Your task to perform on an android device: allow cookies in the chrome app Image 0: 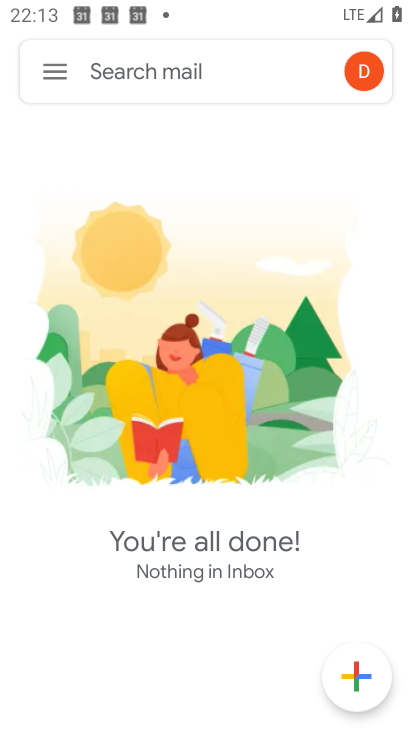
Step 0: press home button
Your task to perform on an android device: allow cookies in the chrome app Image 1: 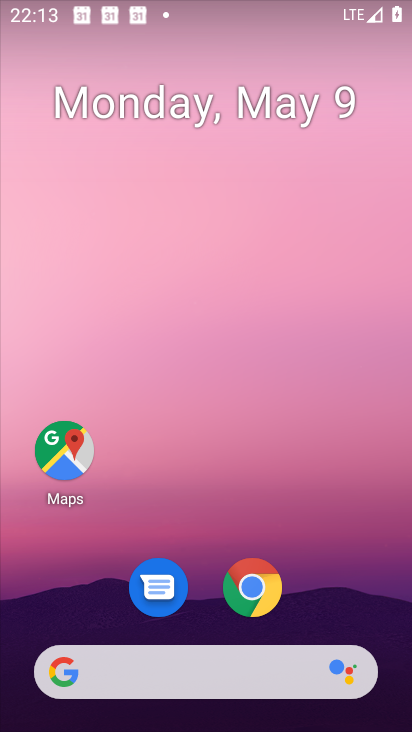
Step 1: click (241, 590)
Your task to perform on an android device: allow cookies in the chrome app Image 2: 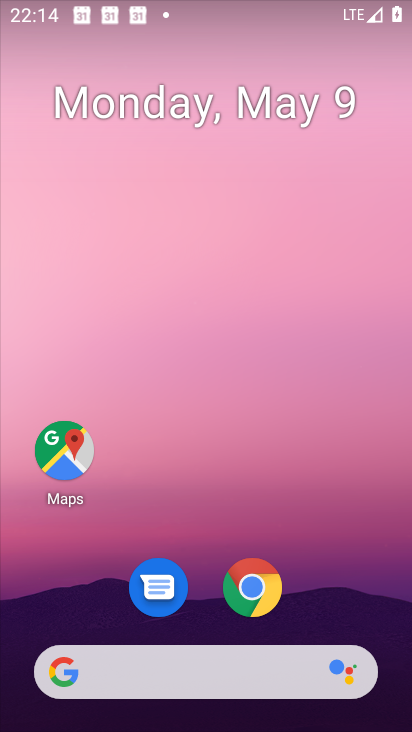
Step 2: click (241, 590)
Your task to perform on an android device: allow cookies in the chrome app Image 3: 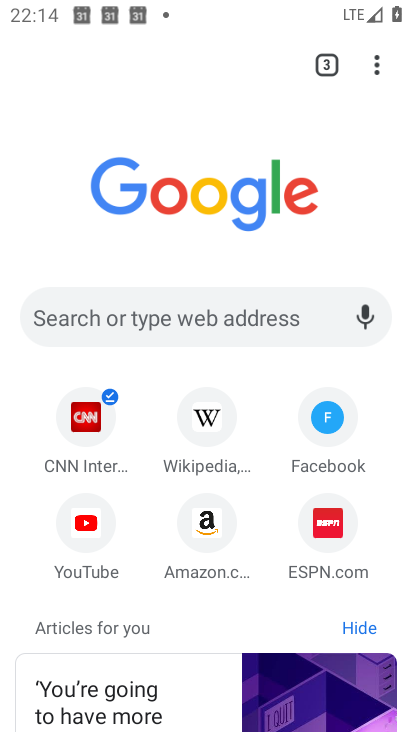
Step 3: click (384, 61)
Your task to perform on an android device: allow cookies in the chrome app Image 4: 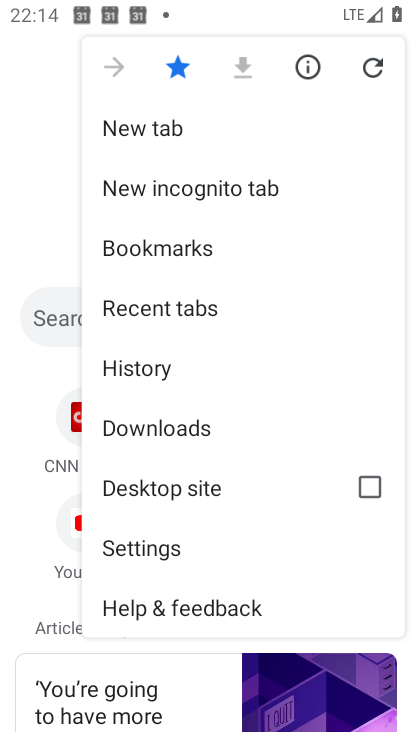
Step 4: click (182, 555)
Your task to perform on an android device: allow cookies in the chrome app Image 5: 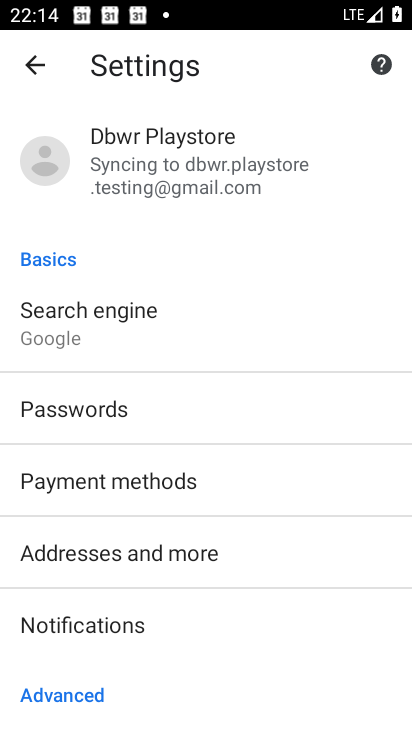
Step 5: drag from (154, 663) to (262, 263)
Your task to perform on an android device: allow cookies in the chrome app Image 6: 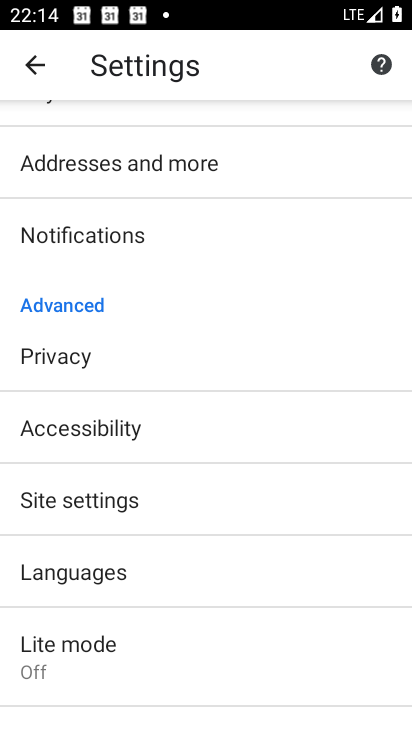
Step 6: click (157, 495)
Your task to perform on an android device: allow cookies in the chrome app Image 7: 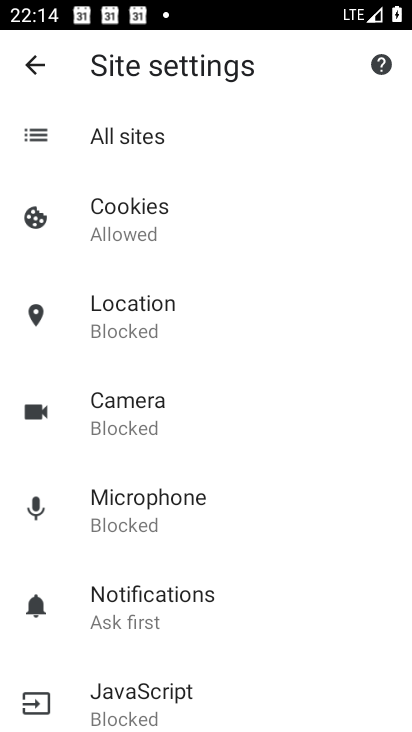
Step 7: click (239, 200)
Your task to perform on an android device: allow cookies in the chrome app Image 8: 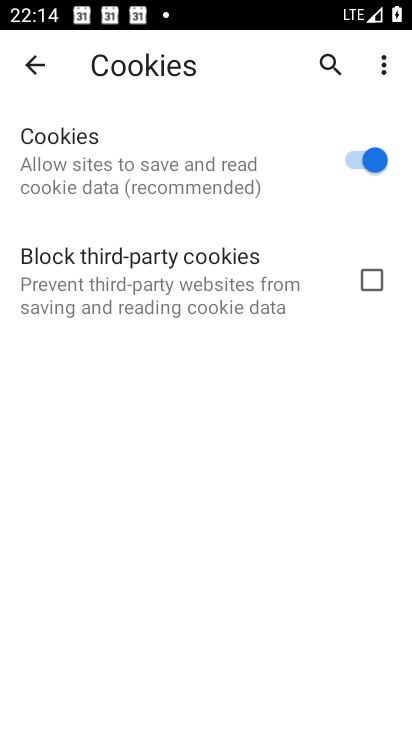
Step 8: task complete